Your task to perform on an android device: turn off translation in the chrome app Image 0: 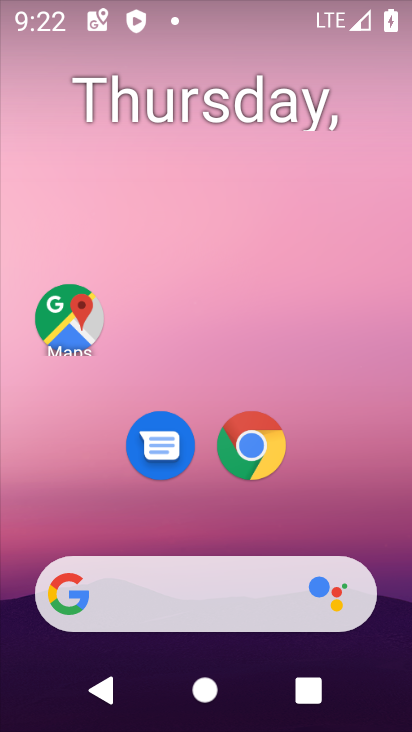
Step 0: click (267, 444)
Your task to perform on an android device: turn off translation in the chrome app Image 1: 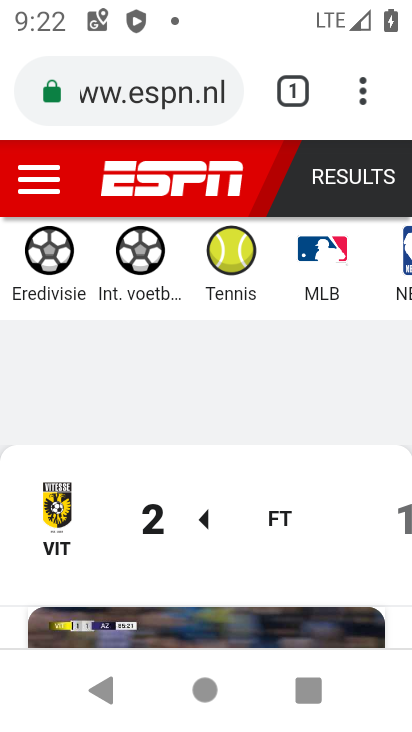
Step 1: drag from (380, 98) to (255, 490)
Your task to perform on an android device: turn off translation in the chrome app Image 2: 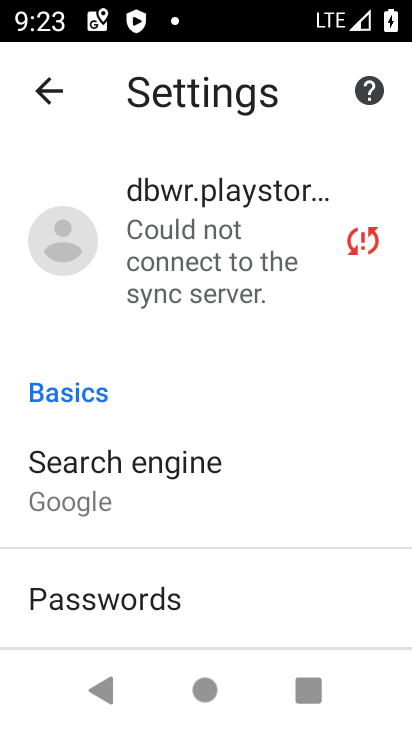
Step 2: drag from (154, 630) to (251, 281)
Your task to perform on an android device: turn off translation in the chrome app Image 3: 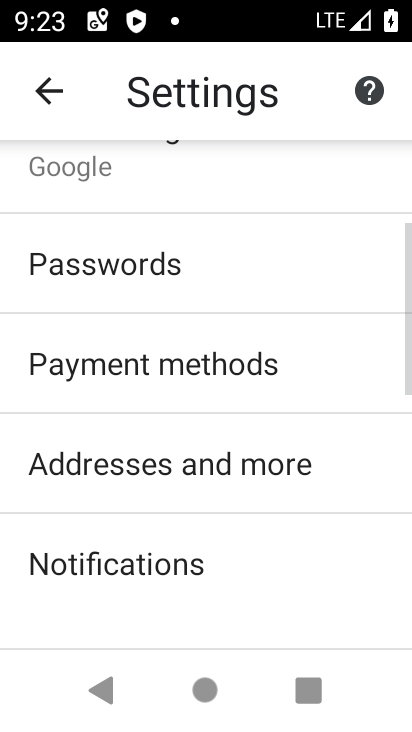
Step 3: drag from (150, 567) to (245, 308)
Your task to perform on an android device: turn off translation in the chrome app Image 4: 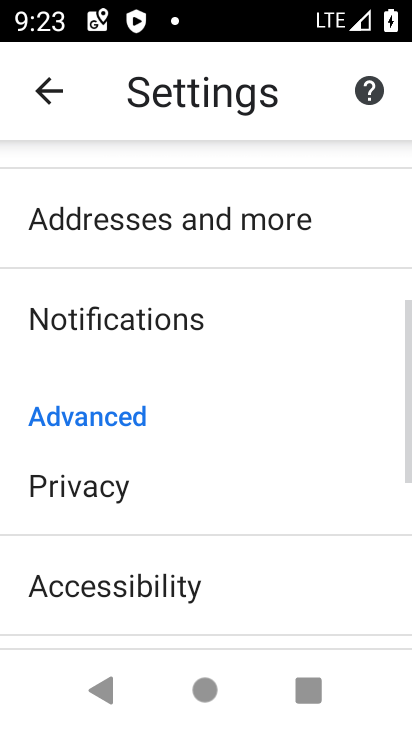
Step 4: drag from (168, 569) to (305, 235)
Your task to perform on an android device: turn off translation in the chrome app Image 5: 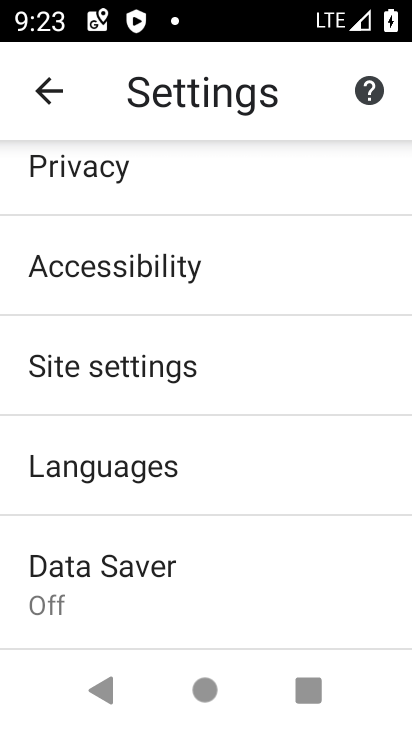
Step 5: click (153, 488)
Your task to perform on an android device: turn off translation in the chrome app Image 6: 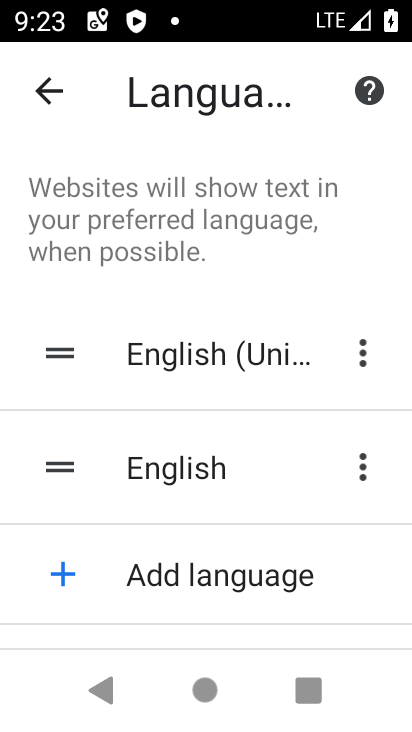
Step 6: drag from (214, 517) to (323, 173)
Your task to perform on an android device: turn off translation in the chrome app Image 7: 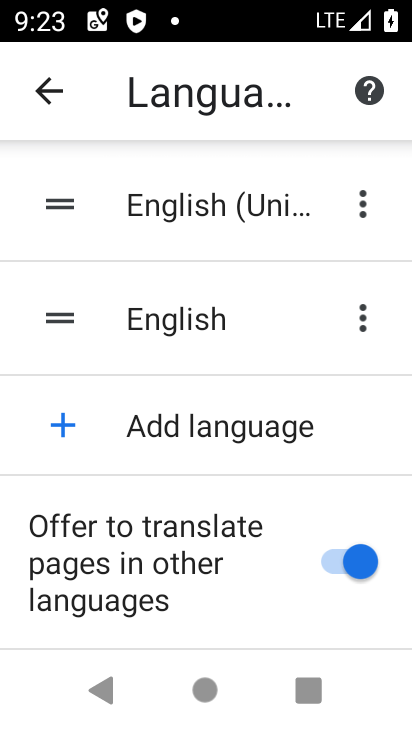
Step 7: click (330, 558)
Your task to perform on an android device: turn off translation in the chrome app Image 8: 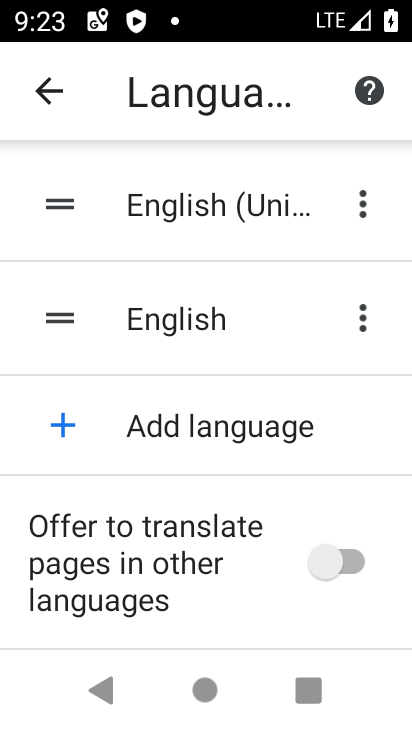
Step 8: task complete